Your task to perform on an android device: Set the phone to "Do not disturb". Image 0: 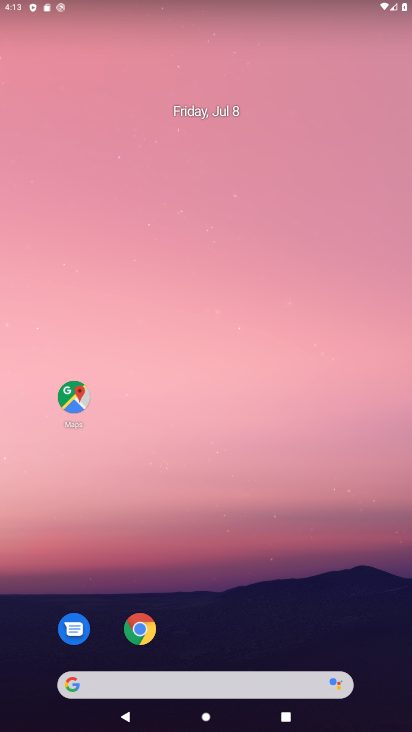
Step 0: drag from (326, 623) to (325, 172)
Your task to perform on an android device: Set the phone to "Do not disturb". Image 1: 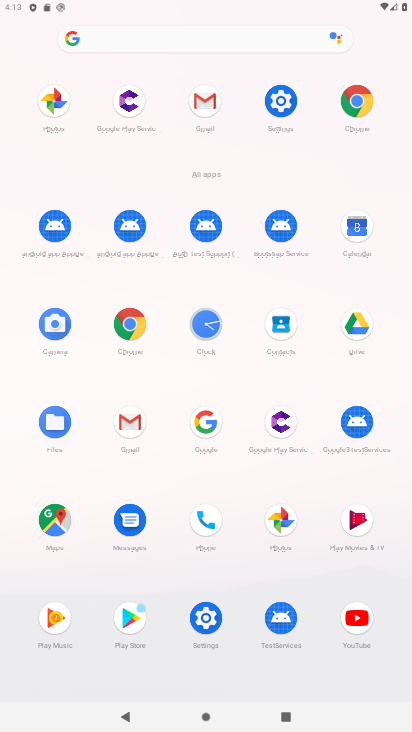
Step 1: click (280, 132)
Your task to perform on an android device: Set the phone to "Do not disturb". Image 2: 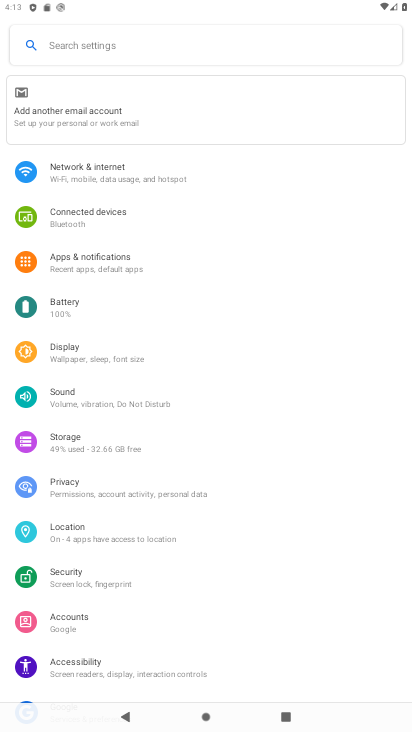
Step 2: click (154, 404)
Your task to perform on an android device: Set the phone to "Do not disturb". Image 3: 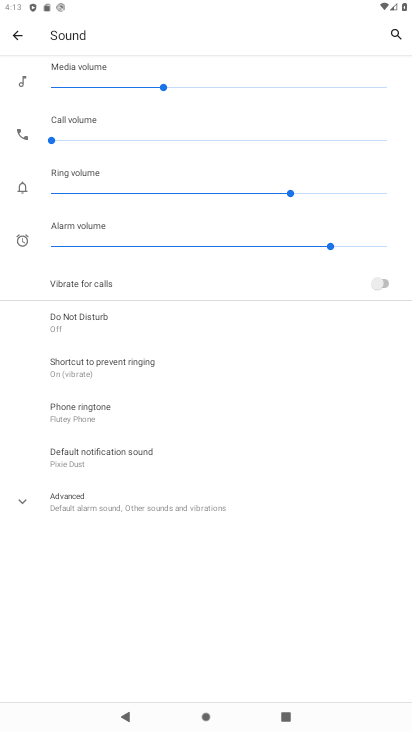
Step 3: click (106, 329)
Your task to perform on an android device: Set the phone to "Do not disturb". Image 4: 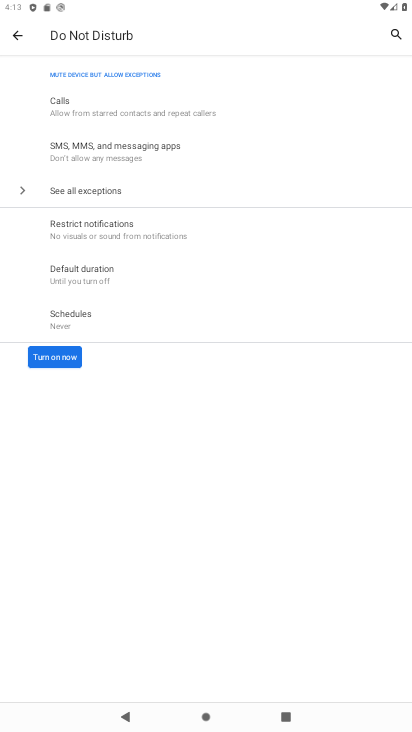
Step 4: click (69, 356)
Your task to perform on an android device: Set the phone to "Do not disturb". Image 5: 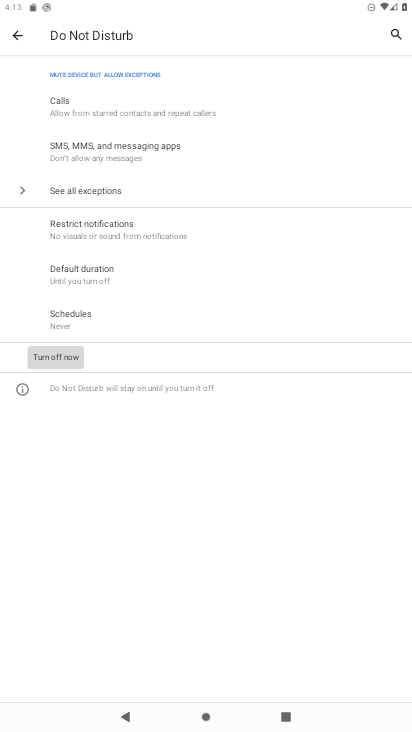
Step 5: task complete